Your task to perform on an android device: Open calendar and show me the first week of next month Image 0: 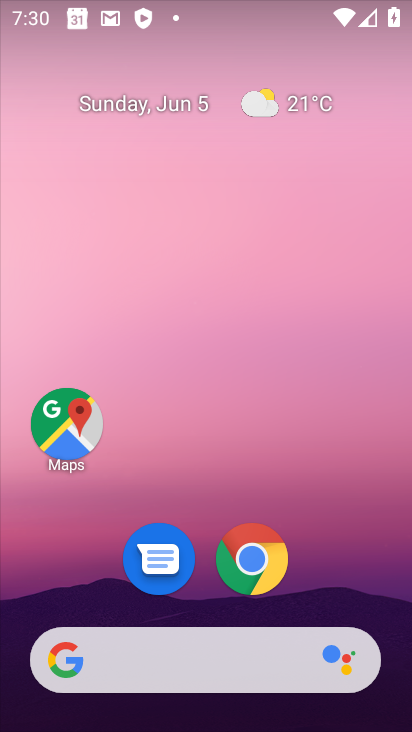
Step 0: drag from (207, 621) to (81, 27)
Your task to perform on an android device: Open calendar and show me the first week of next month Image 1: 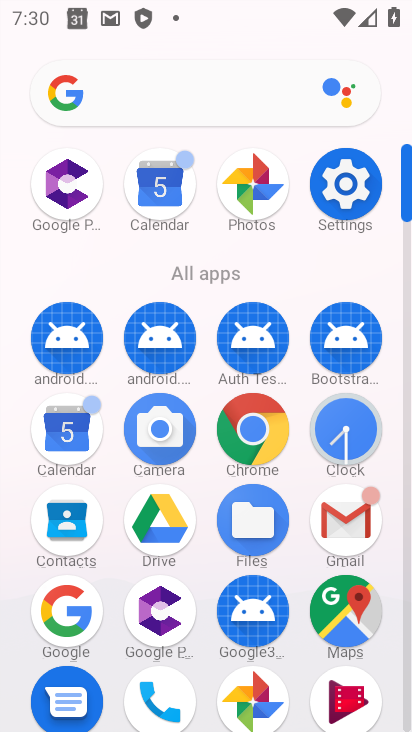
Step 1: click (57, 447)
Your task to perform on an android device: Open calendar and show me the first week of next month Image 2: 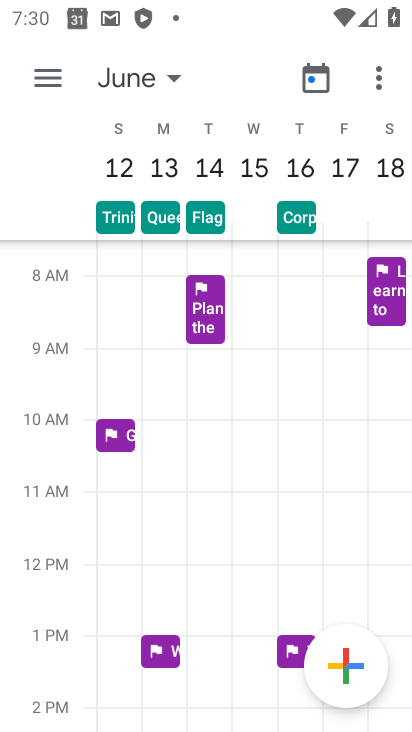
Step 2: click (308, 74)
Your task to perform on an android device: Open calendar and show me the first week of next month Image 3: 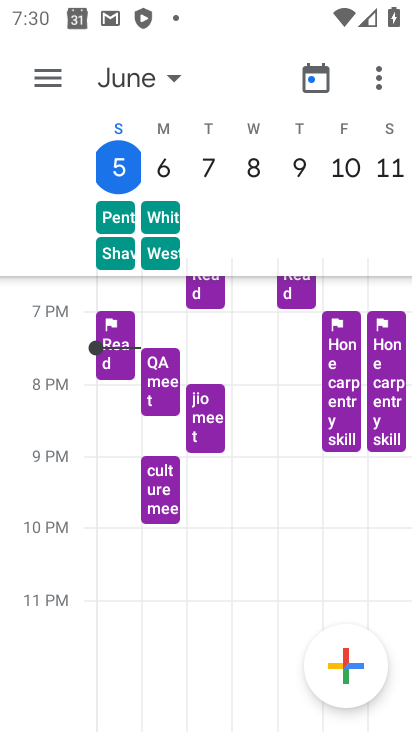
Step 3: task complete